Your task to perform on an android device: Open Google Chrome Image 0: 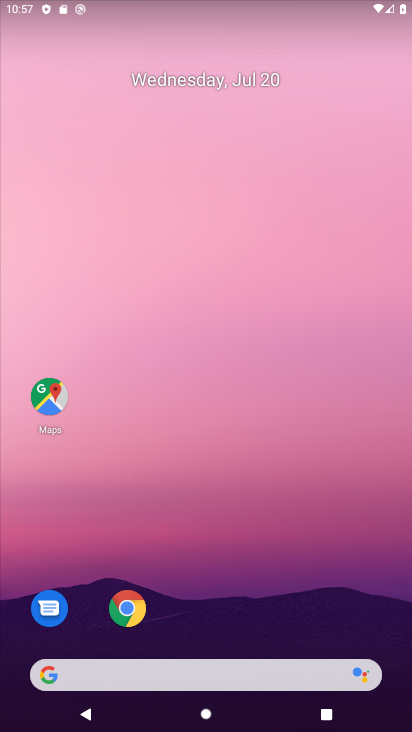
Step 0: drag from (376, 588) to (166, 31)
Your task to perform on an android device: Open Google Chrome Image 1: 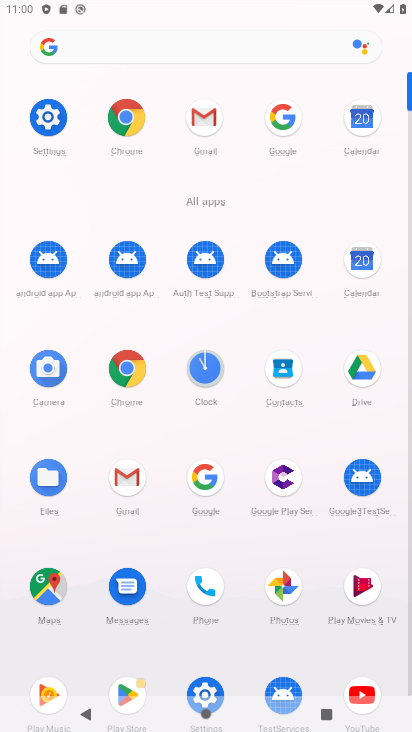
Step 1: click (124, 364)
Your task to perform on an android device: Open Google Chrome Image 2: 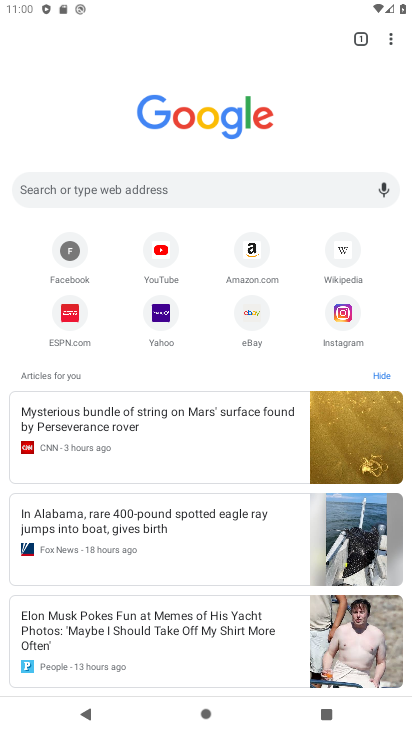
Step 2: task complete